Your task to perform on an android device: toggle pop-ups in chrome Image 0: 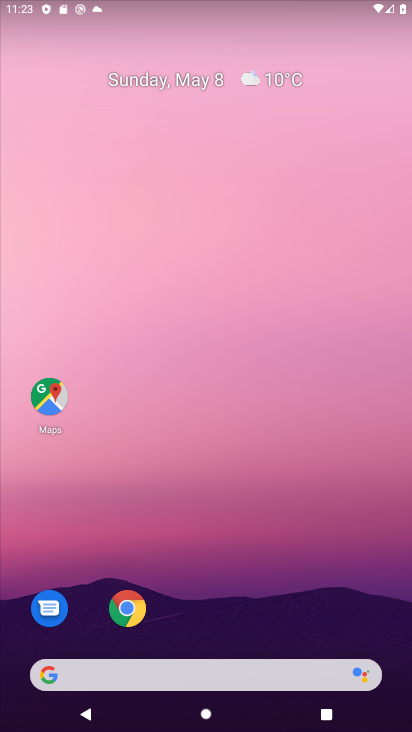
Step 0: click (137, 618)
Your task to perform on an android device: toggle pop-ups in chrome Image 1: 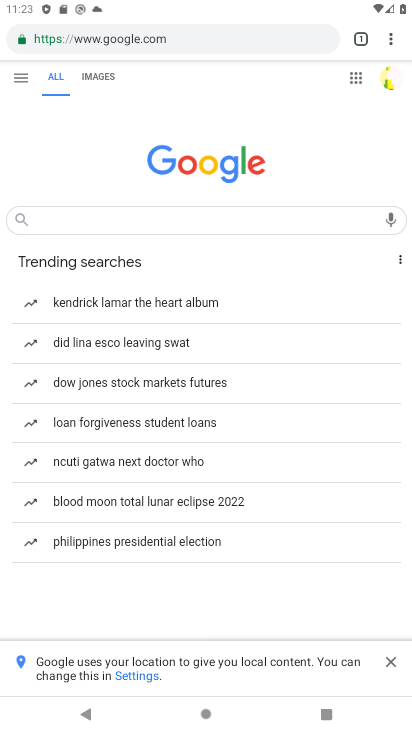
Step 1: click (388, 45)
Your task to perform on an android device: toggle pop-ups in chrome Image 2: 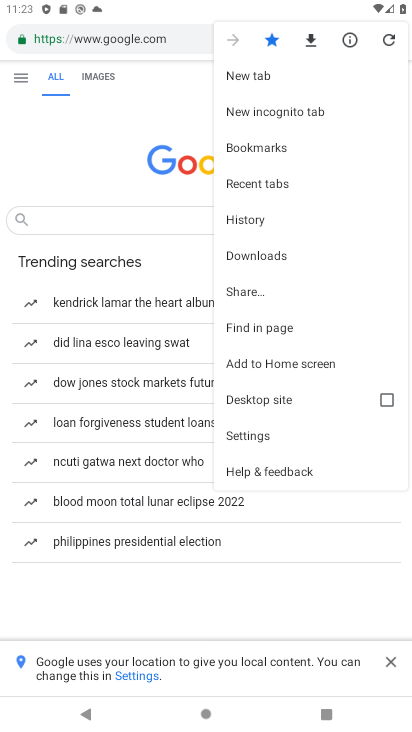
Step 2: click (275, 435)
Your task to perform on an android device: toggle pop-ups in chrome Image 3: 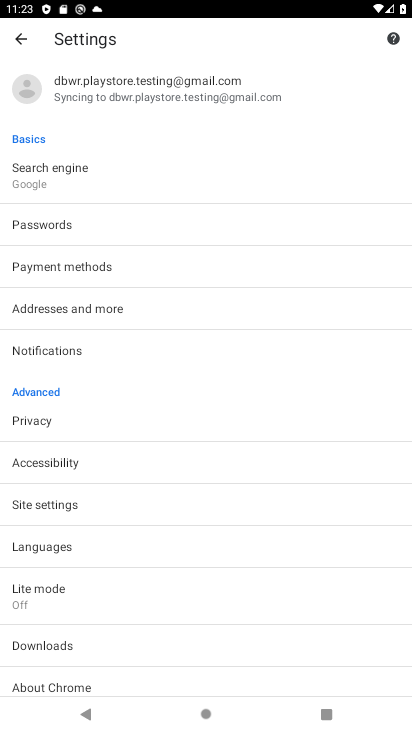
Step 3: drag from (168, 640) to (183, 432)
Your task to perform on an android device: toggle pop-ups in chrome Image 4: 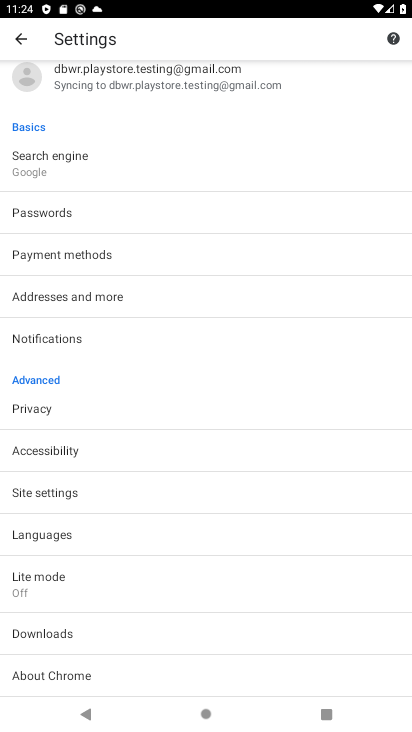
Step 4: click (111, 501)
Your task to perform on an android device: toggle pop-ups in chrome Image 5: 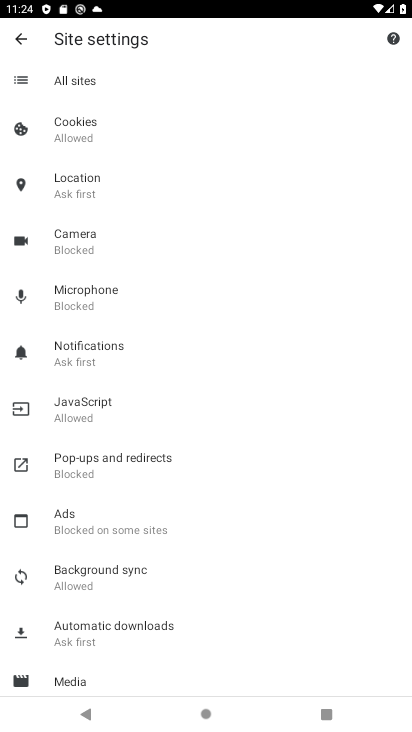
Step 5: drag from (114, 653) to (137, 526)
Your task to perform on an android device: toggle pop-ups in chrome Image 6: 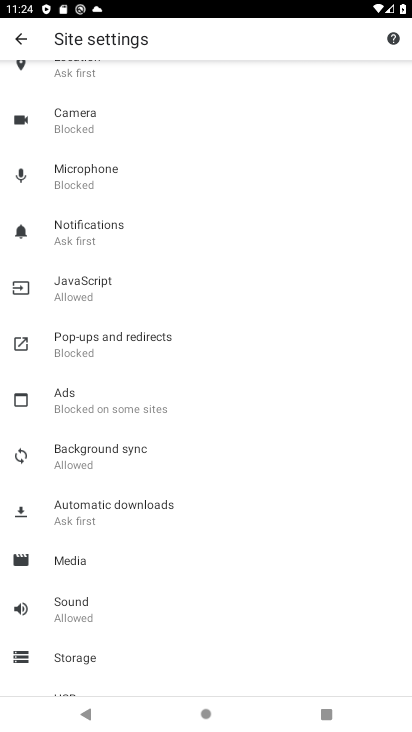
Step 6: click (195, 340)
Your task to perform on an android device: toggle pop-ups in chrome Image 7: 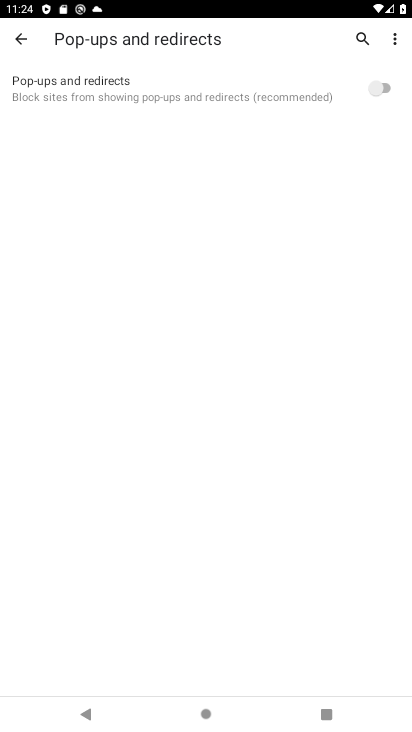
Step 7: click (389, 100)
Your task to perform on an android device: toggle pop-ups in chrome Image 8: 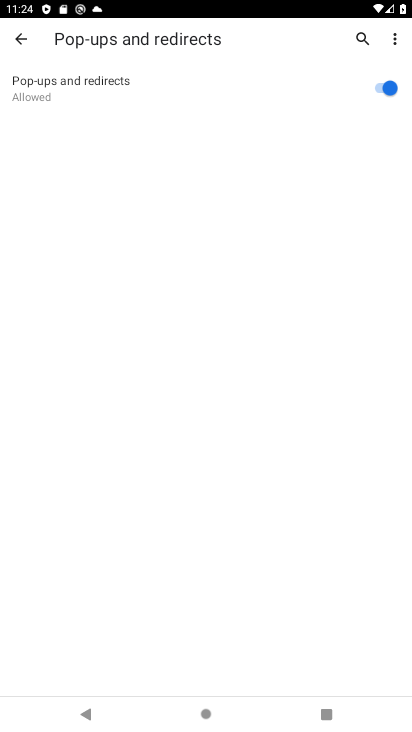
Step 8: task complete